Your task to perform on an android device: Go to ESPN.com Image 0: 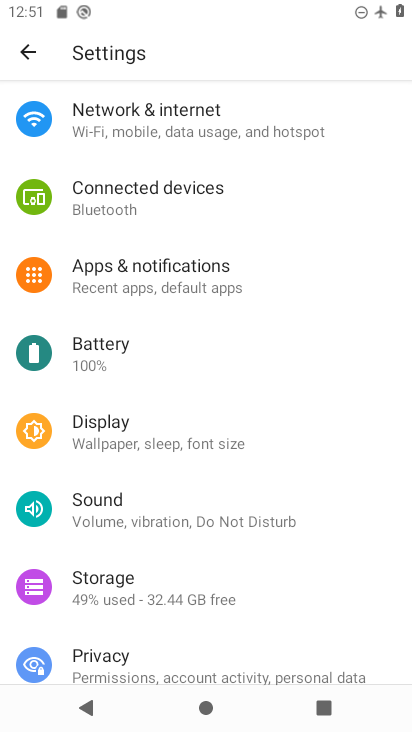
Step 0: press home button
Your task to perform on an android device: Go to ESPN.com Image 1: 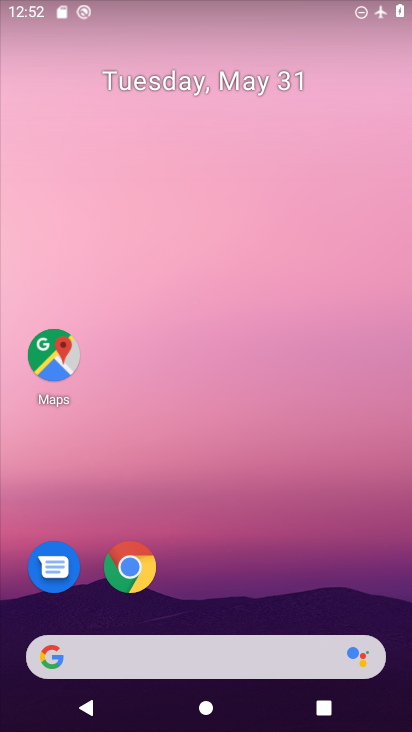
Step 1: click (146, 589)
Your task to perform on an android device: Go to ESPN.com Image 2: 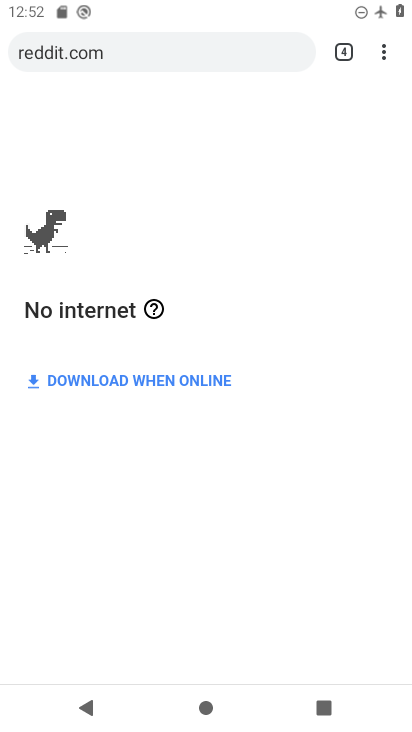
Step 2: click (344, 54)
Your task to perform on an android device: Go to ESPN.com Image 3: 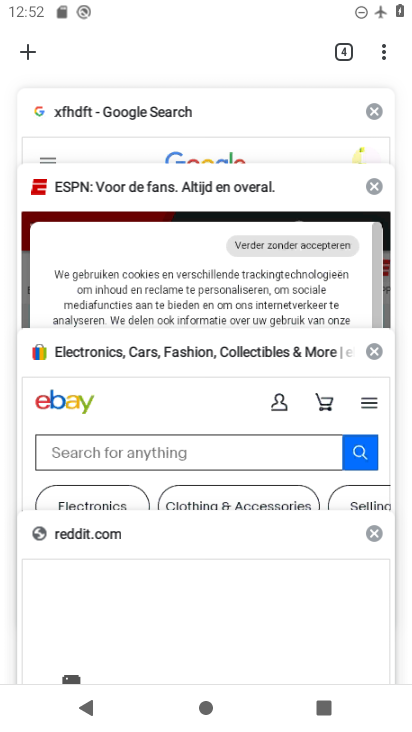
Step 3: click (180, 191)
Your task to perform on an android device: Go to ESPN.com Image 4: 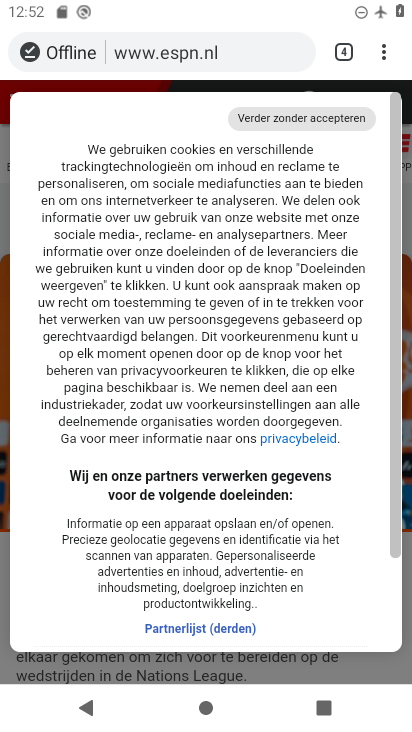
Step 4: task complete